Your task to perform on an android device: Is it going to rain this weekend? Image 0: 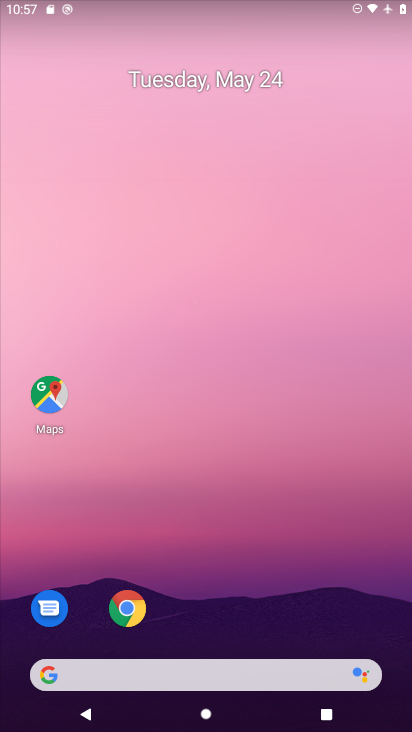
Step 0: drag from (21, 288) to (385, 292)
Your task to perform on an android device: Is it going to rain this weekend? Image 1: 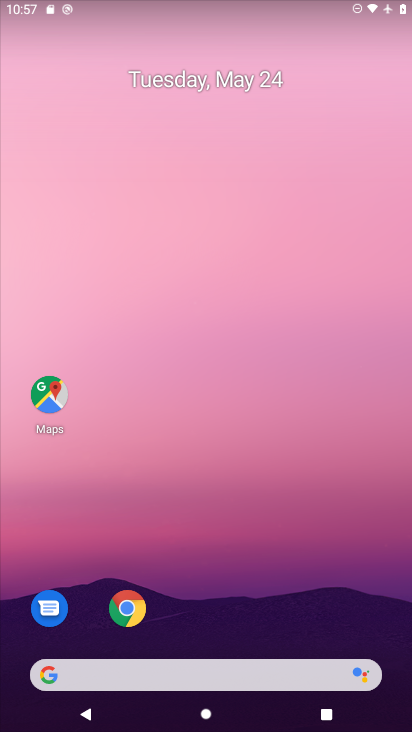
Step 1: drag from (8, 185) to (411, 228)
Your task to perform on an android device: Is it going to rain this weekend? Image 2: 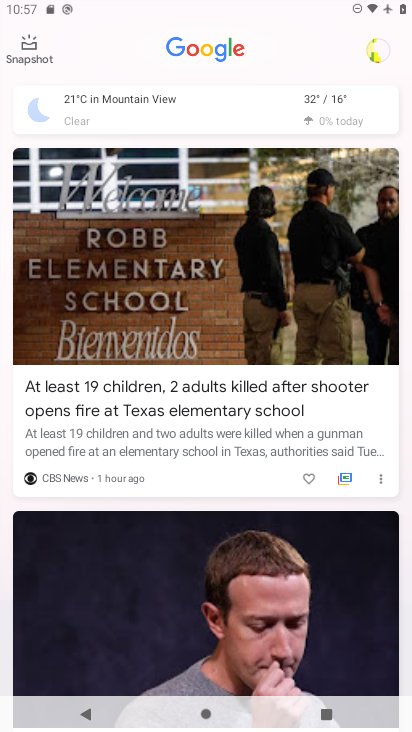
Step 2: click (330, 106)
Your task to perform on an android device: Is it going to rain this weekend? Image 3: 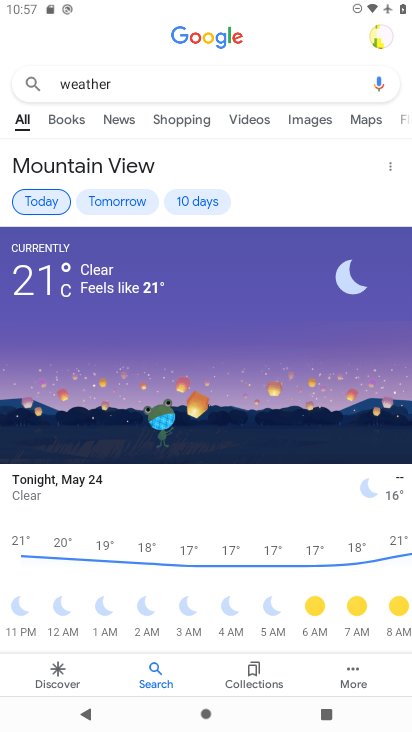
Step 3: click (194, 194)
Your task to perform on an android device: Is it going to rain this weekend? Image 4: 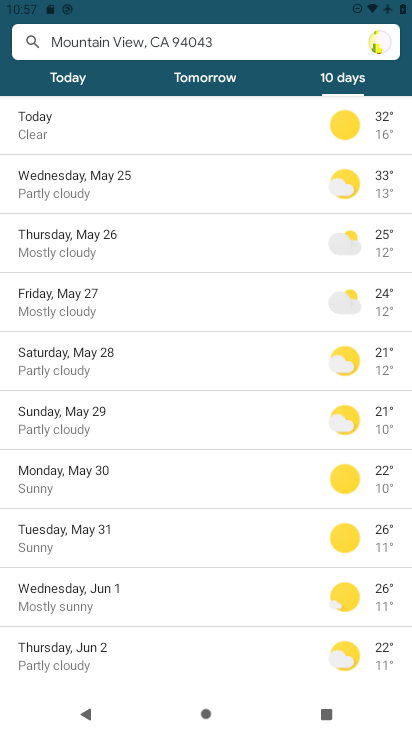
Step 4: task complete